Your task to perform on an android device: Open privacy settings Image 0: 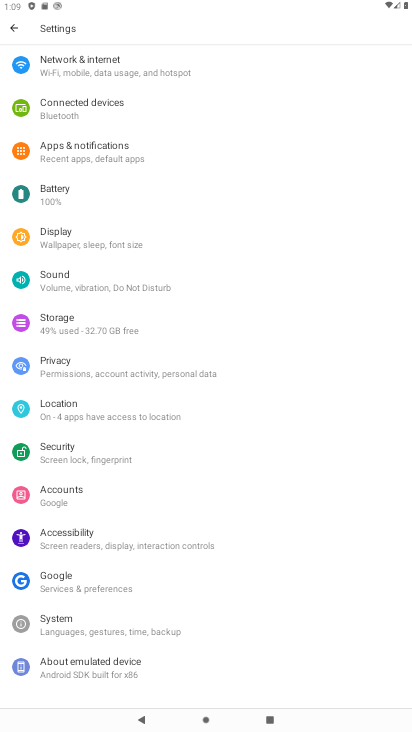
Step 0: click (70, 365)
Your task to perform on an android device: Open privacy settings Image 1: 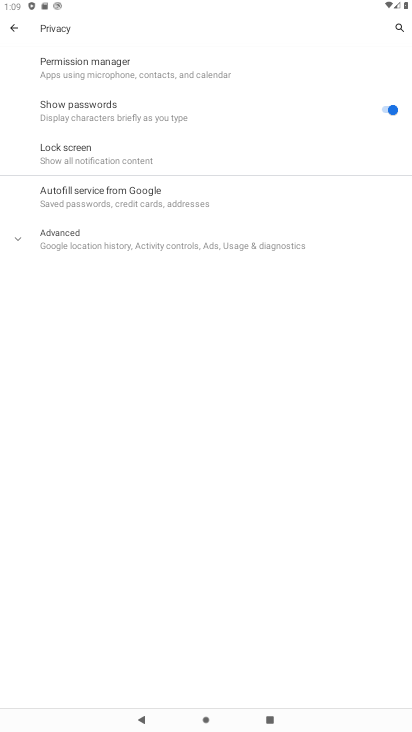
Step 1: click (19, 242)
Your task to perform on an android device: Open privacy settings Image 2: 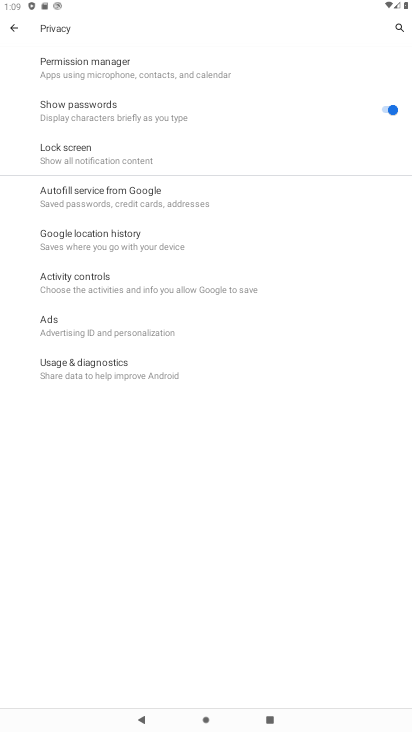
Step 2: task complete